Your task to perform on an android device: turn off wifi Image 0: 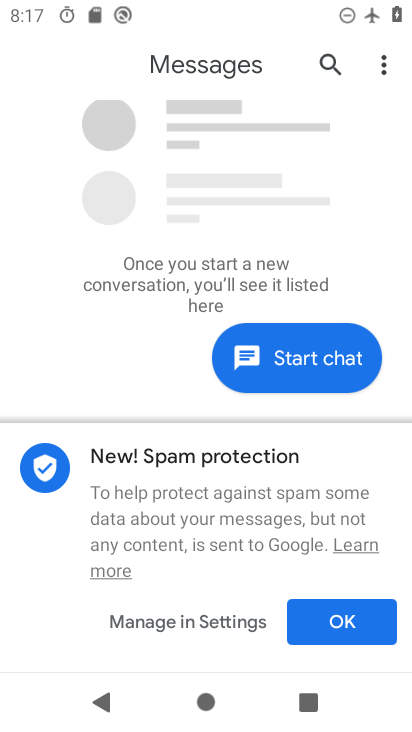
Step 0: press home button
Your task to perform on an android device: turn off wifi Image 1: 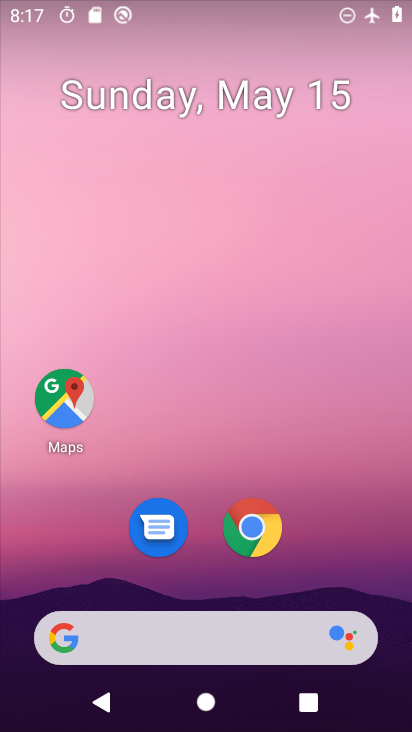
Step 1: drag from (214, 574) to (208, 145)
Your task to perform on an android device: turn off wifi Image 2: 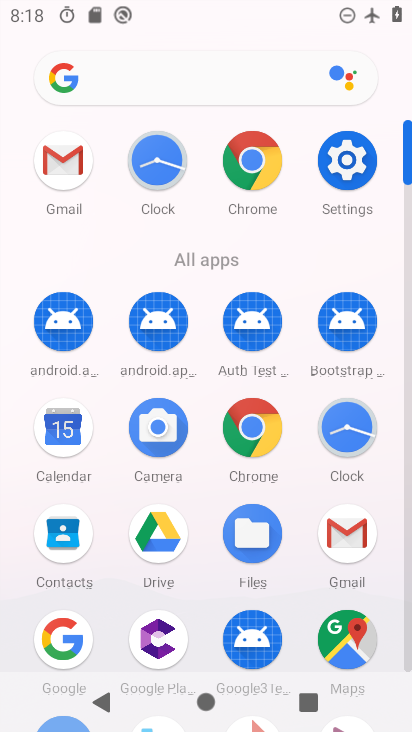
Step 2: click (349, 173)
Your task to perform on an android device: turn off wifi Image 3: 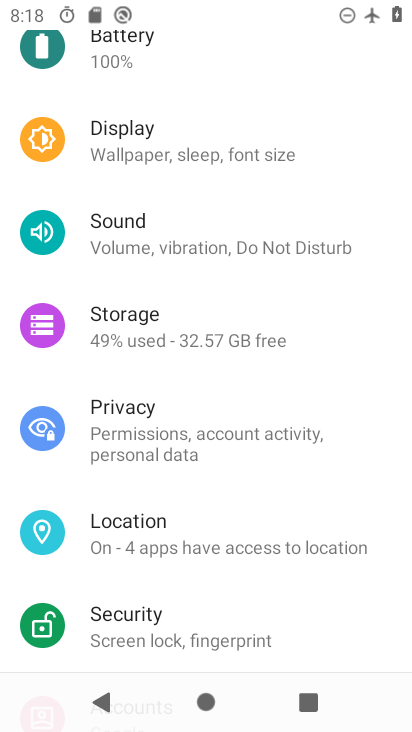
Step 3: drag from (218, 110) to (221, 461)
Your task to perform on an android device: turn off wifi Image 4: 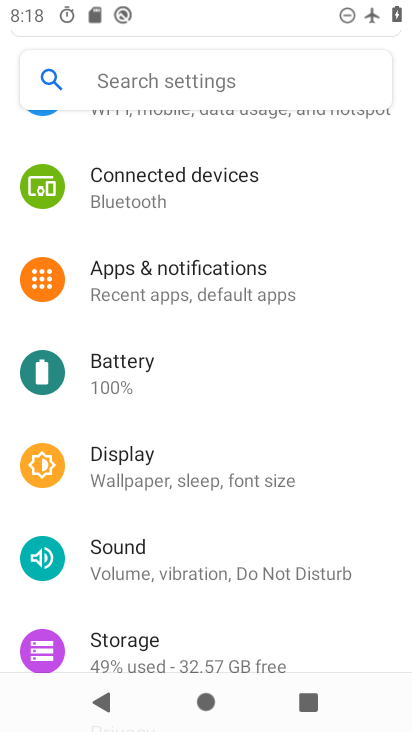
Step 4: drag from (168, 138) to (174, 370)
Your task to perform on an android device: turn off wifi Image 5: 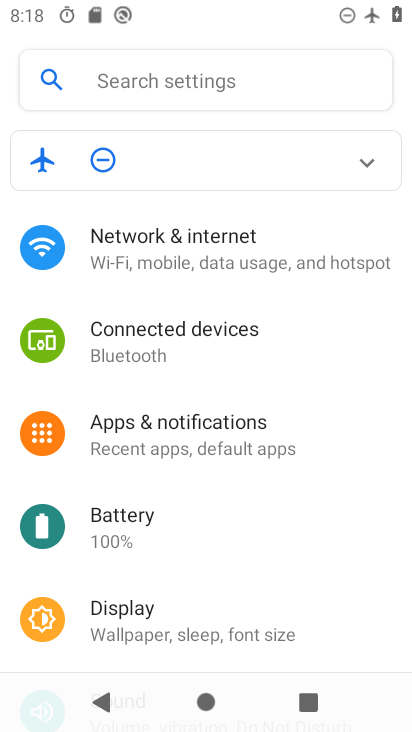
Step 5: click (185, 259)
Your task to perform on an android device: turn off wifi Image 6: 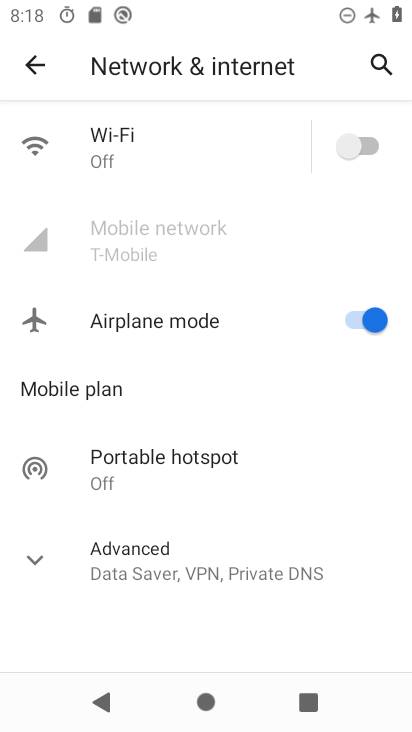
Step 6: task complete